Your task to perform on an android device: add a contact in the contacts app Image 0: 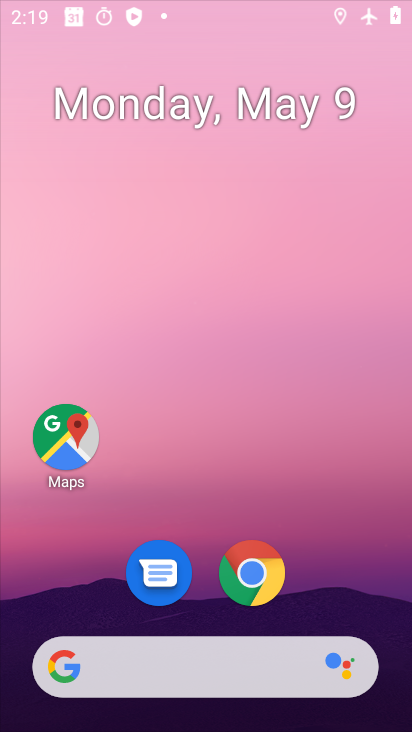
Step 0: drag from (201, 698) to (170, 48)
Your task to perform on an android device: add a contact in the contacts app Image 1: 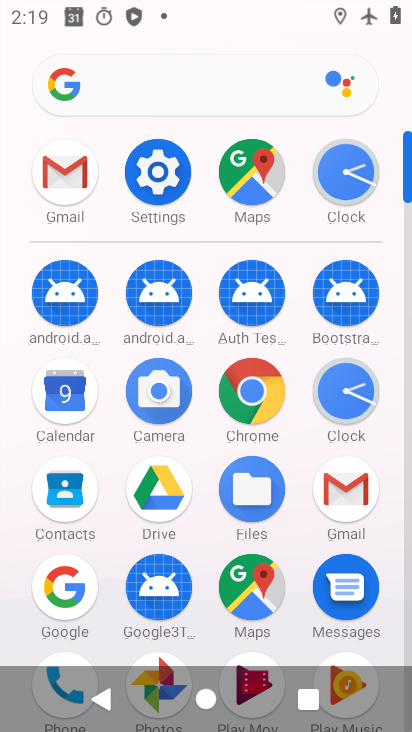
Step 1: click (66, 474)
Your task to perform on an android device: add a contact in the contacts app Image 2: 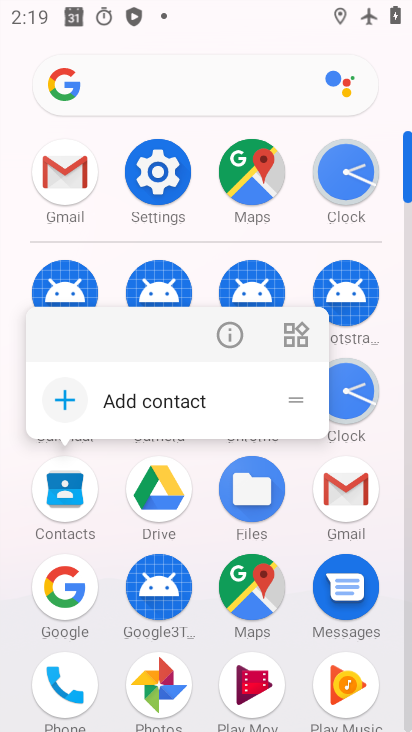
Step 2: click (66, 473)
Your task to perform on an android device: add a contact in the contacts app Image 3: 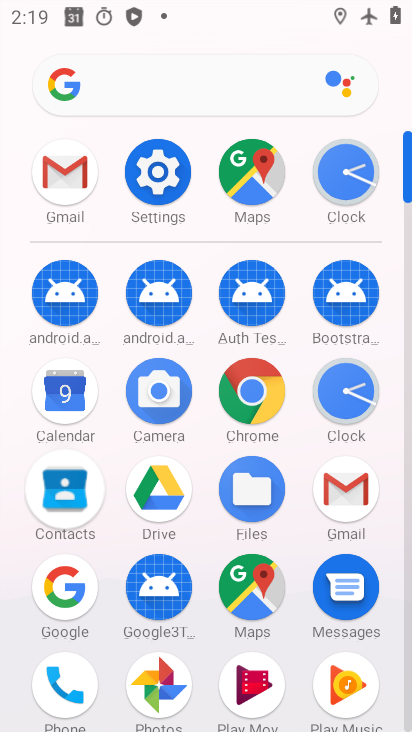
Step 3: click (70, 476)
Your task to perform on an android device: add a contact in the contacts app Image 4: 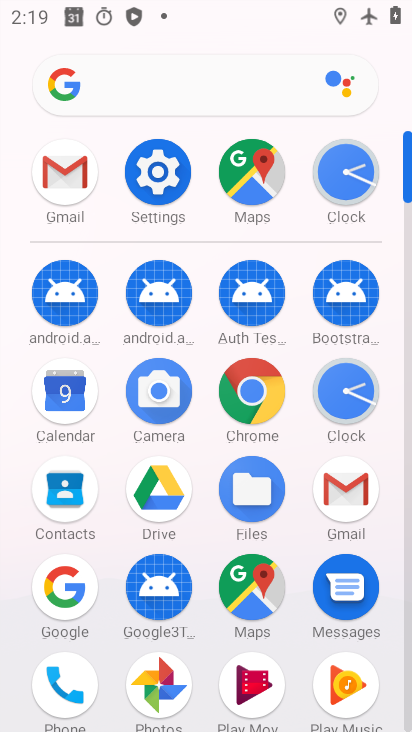
Step 4: click (81, 501)
Your task to perform on an android device: add a contact in the contacts app Image 5: 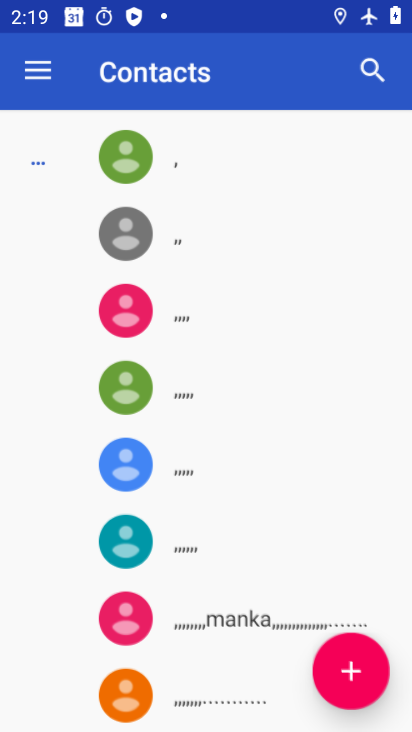
Step 5: click (81, 501)
Your task to perform on an android device: add a contact in the contacts app Image 6: 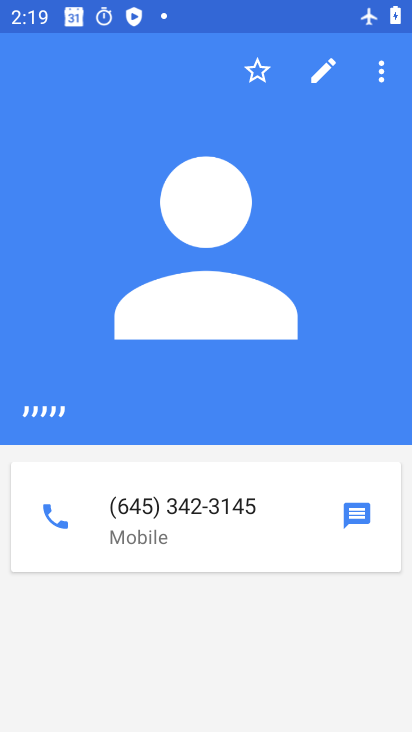
Step 6: drag from (126, 502) to (92, 430)
Your task to perform on an android device: add a contact in the contacts app Image 7: 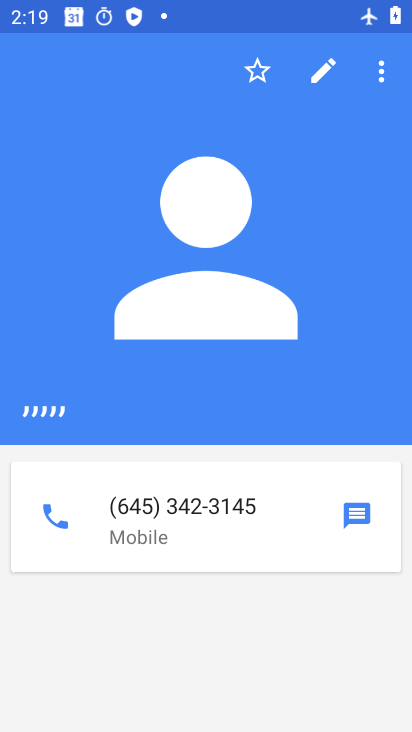
Step 7: press back button
Your task to perform on an android device: add a contact in the contacts app Image 8: 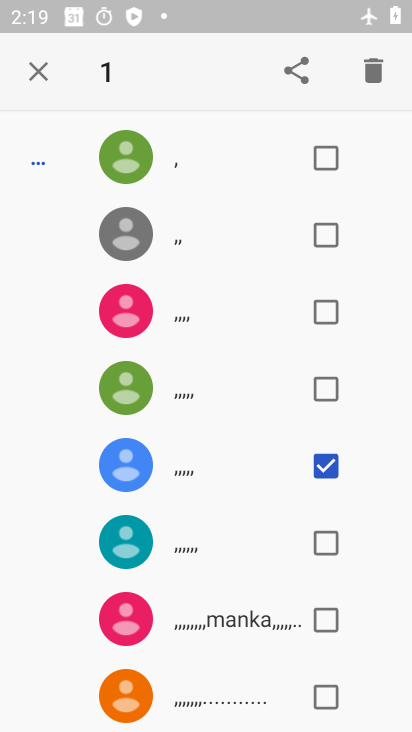
Step 8: click (31, 73)
Your task to perform on an android device: add a contact in the contacts app Image 9: 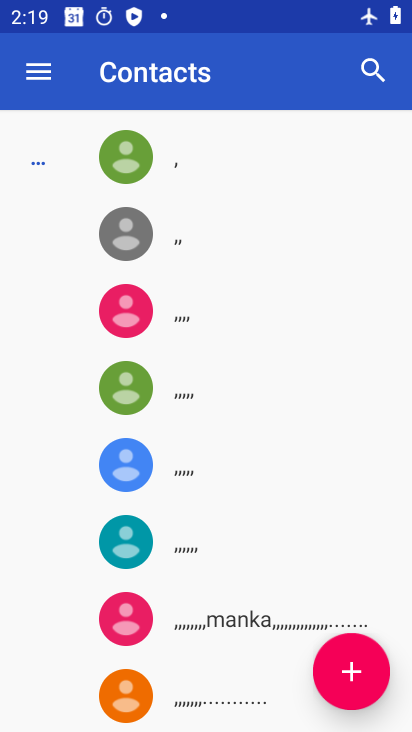
Step 9: click (344, 673)
Your task to perform on an android device: add a contact in the contacts app Image 10: 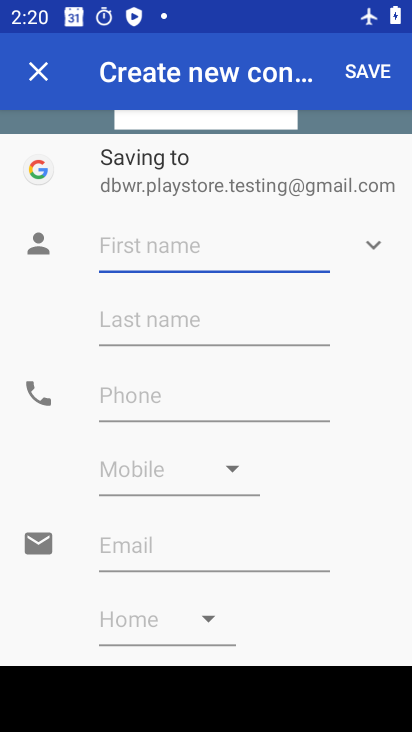
Step 10: type "ram"
Your task to perform on an android device: add a contact in the contacts app Image 11: 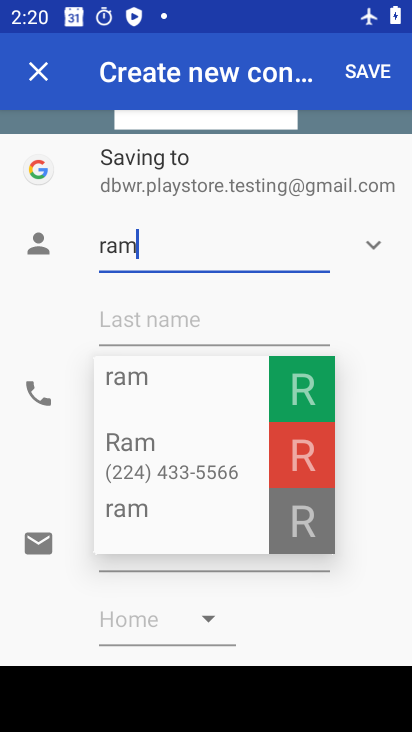
Step 11: click (44, 437)
Your task to perform on an android device: add a contact in the contacts app Image 12: 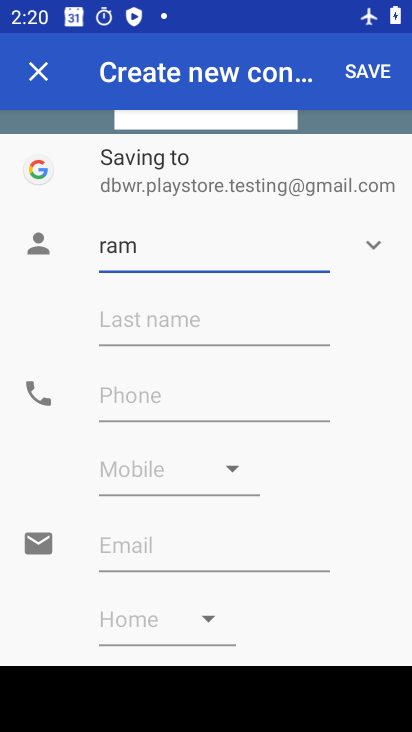
Step 12: click (132, 403)
Your task to perform on an android device: add a contact in the contacts app Image 13: 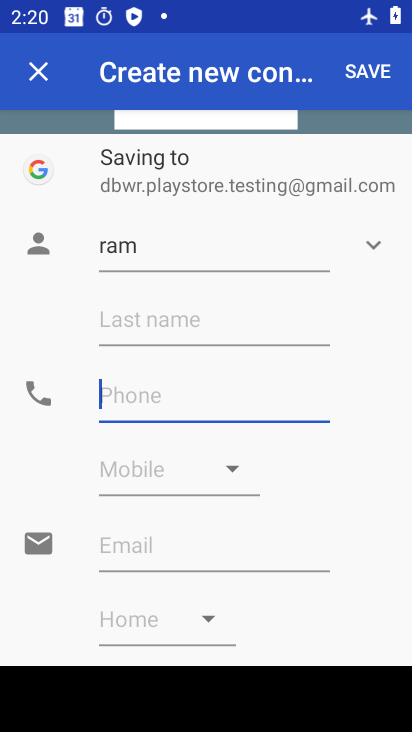
Step 13: type "978967876"
Your task to perform on an android device: add a contact in the contacts app Image 14: 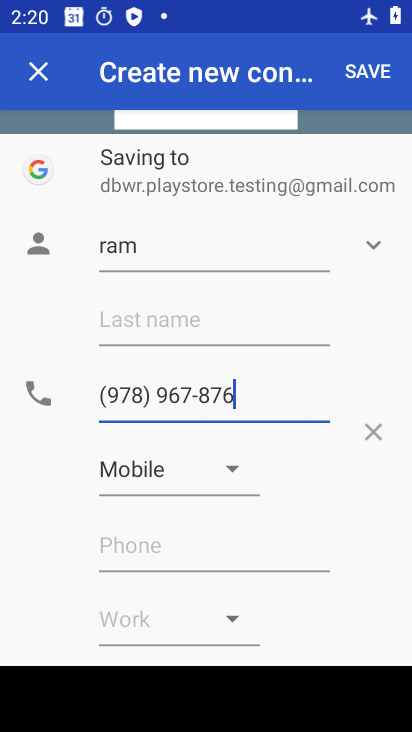
Step 14: click (347, 71)
Your task to perform on an android device: add a contact in the contacts app Image 15: 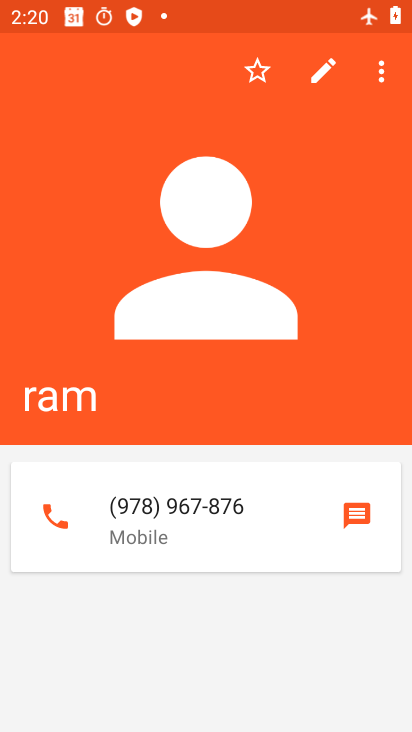
Step 15: task complete